Your task to perform on an android device: Search for pizza restaurants on Maps Image 0: 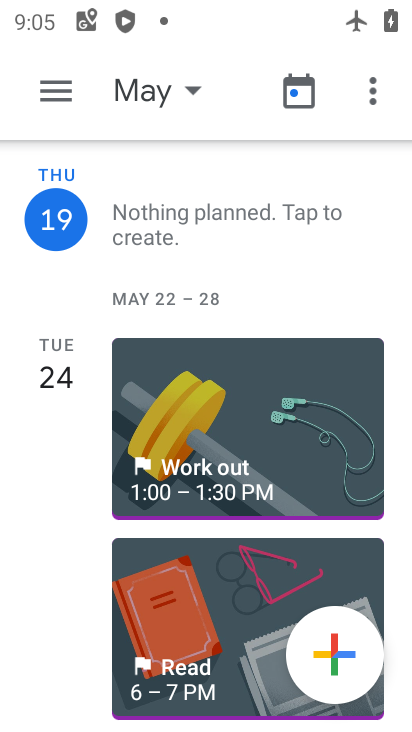
Step 0: press home button
Your task to perform on an android device: Search for pizza restaurants on Maps Image 1: 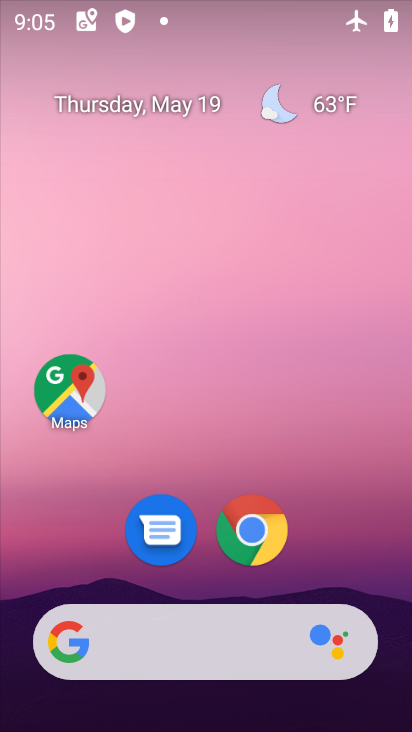
Step 1: drag from (234, 600) to (262, 226)
Your task to perform on an android device: Search for pizza restaurants on Maps Image 2: 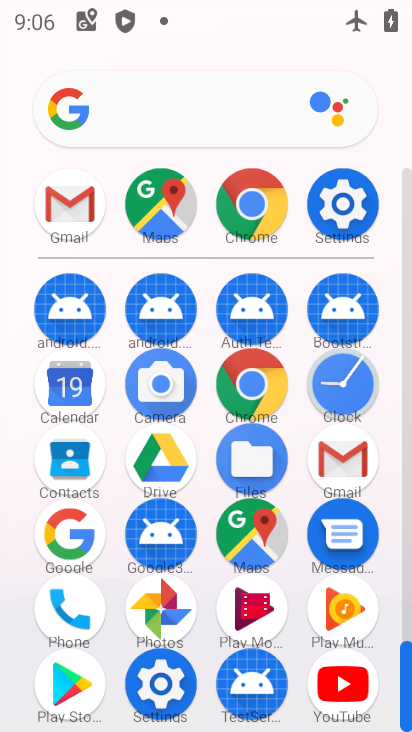
Step 2: click (261, 539)
Your task to perform on an android device: Search for pizza restaurants on Maps Image 3: 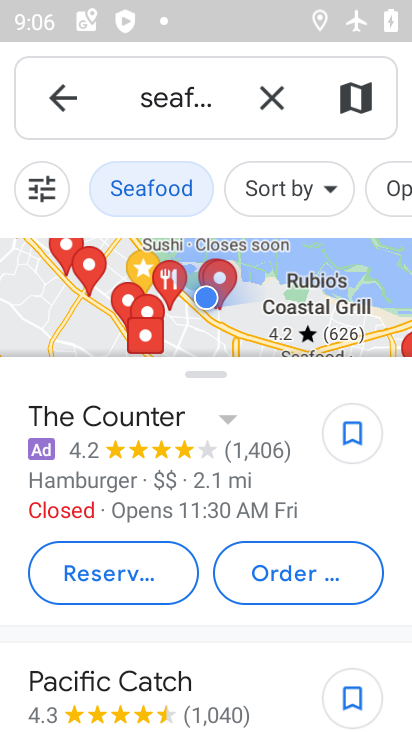
Step 3: click (269, 94)
Your task to perform on an android device: Search for pizza restaurants on Maps Image 4: 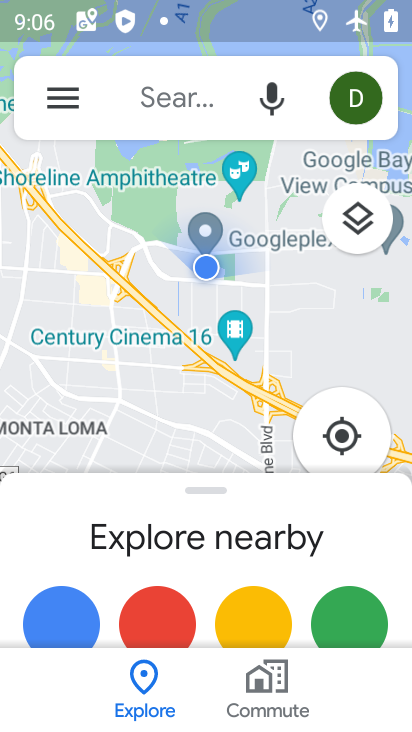
Step 4: click (174, 91)
Your task to perform on an android device: Search for pizza restaurants on Maps Image 5: 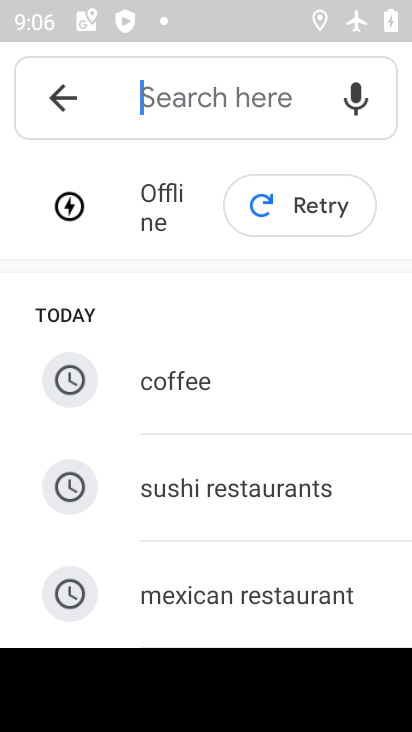
Step 5: type "pizza"
Your task to perform on an android device: Search for pizza restaurants on Maps Image 6: 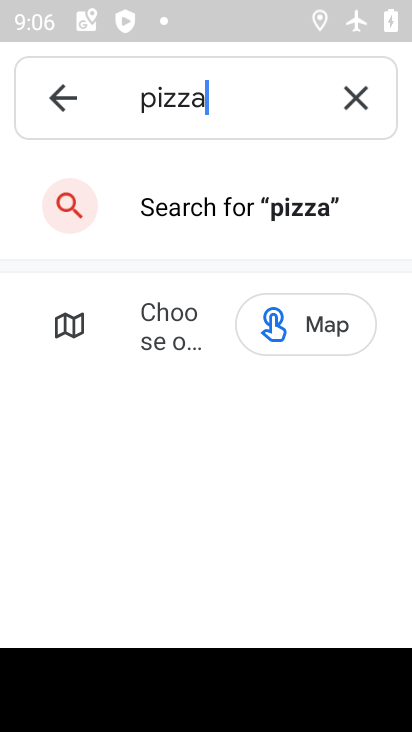
Step 6: task complete